Your task to perform on an android device: Open calendar and show me the fourth week of next month Image 0: 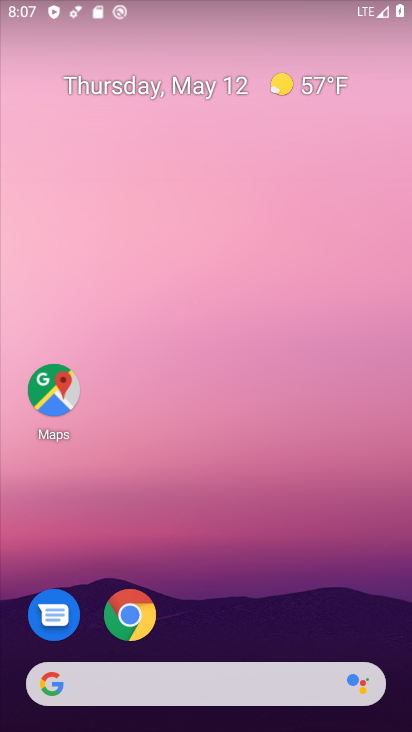
Step 0: drag from (232, 420) to (205, 43)
Your task to perform on an android device: Open calendar and show me the fourth week of next month Image 1: 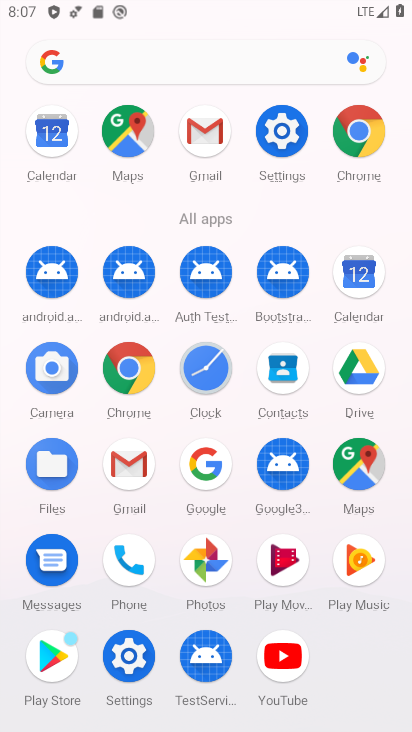
Step 1: drag from (11, 548) to (3, 300)
Your task to perform on an android device: Open calendar and show me the fourth week of next month Image 2: 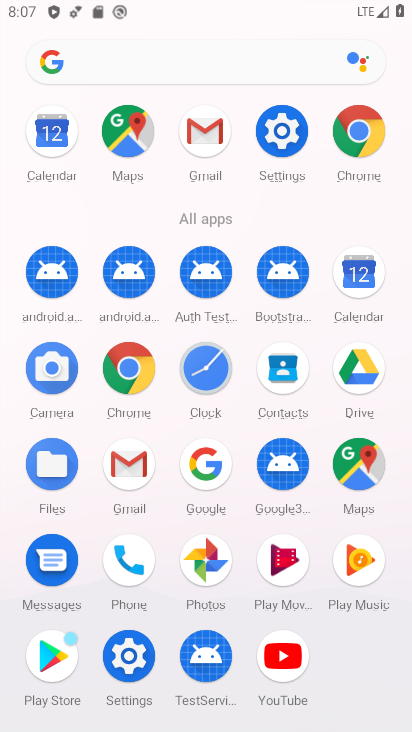
Step 2: drag from (13, 524) to (7, 353)
Your task to perform on an android device: Open calendar and show me the fourth week of next month Image 3: 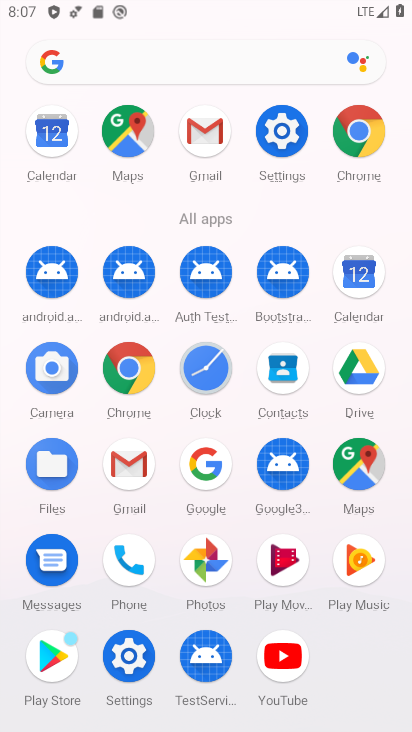
Step 3: click (357, 264)
Your task to perform on an android device: Open calendar and show me the fourth week of next month Image 4: 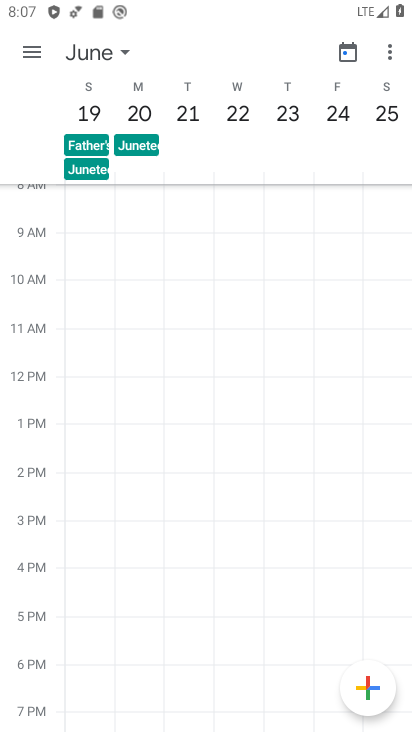
Step 4: click (341, 52)
Your task to perform on an android device: Open calendar and show me the fourth week of next month Image 5: 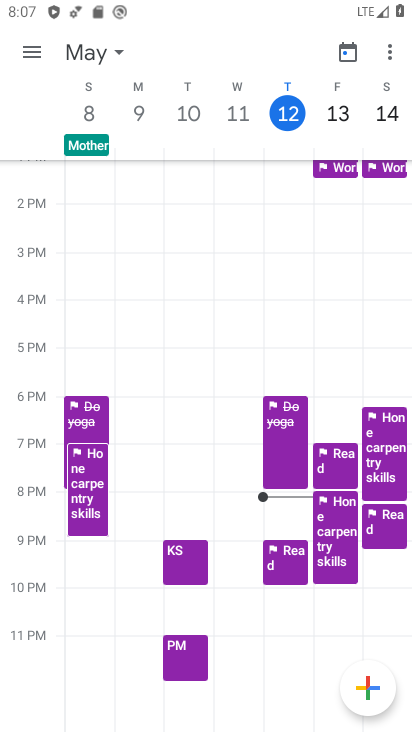
Step 5: click (99, 51)
Your task to perform on an android device: Open calendar and show me the fourth week of next month Image 6: 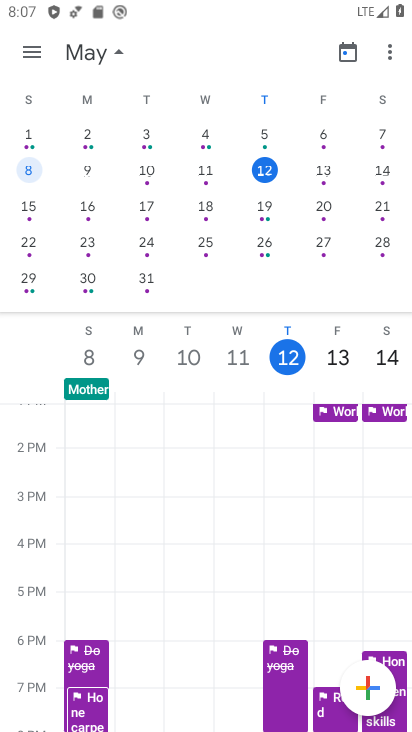
Step 6: drag from (372, 216) to (0, 186)
Your task to perform on an android device: Open calendar and show me the fourth week of next month Image 7: 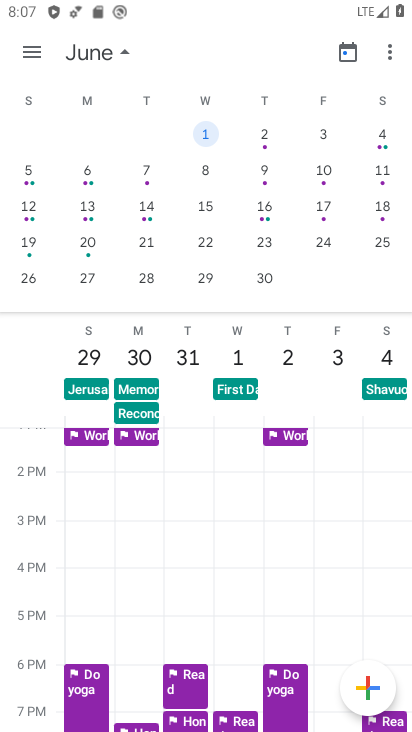
Step 7: click (28, 250)
Your task to perform on an android device: Open calendar and show me the fourth week of next month Image 8: 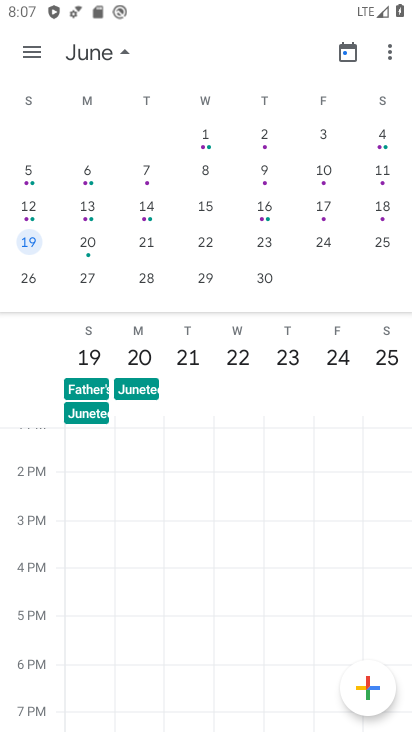
Step 8: click (26, 47)
Your task to perform on an android device: Open calendar and show me the fourth week of next month Image 9: 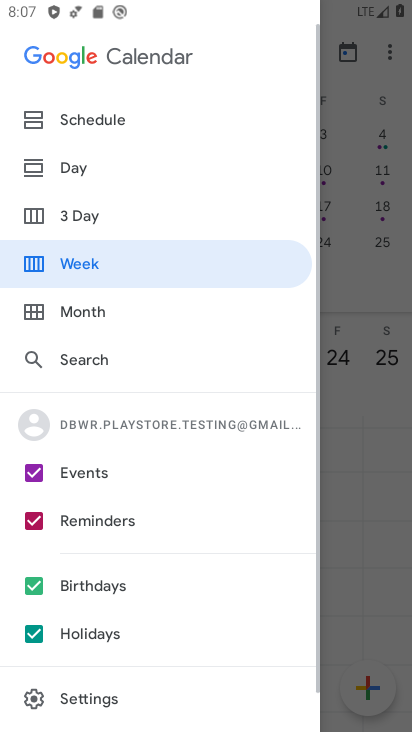
Step 9: click (105, 255)
Your task to perform on an android device: Open calendar and show me the fourth week of next month Image 10: 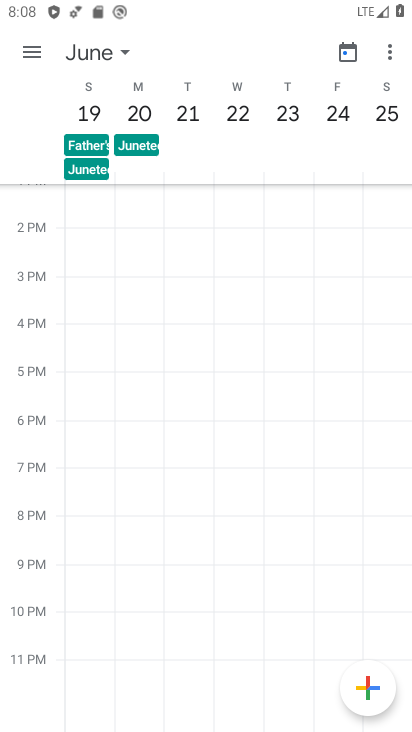
Step 10: task complete